Your task to perform on an android device: turn notification dots off Image 0: 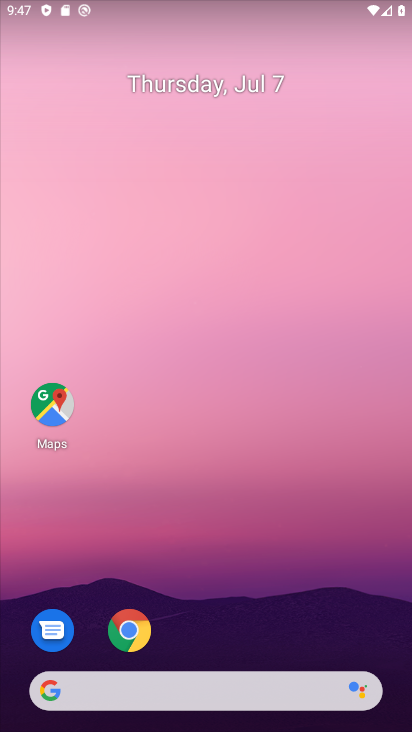
Step 0: press home button
Your task to perform on an android device: turn notification dots off Image 1: 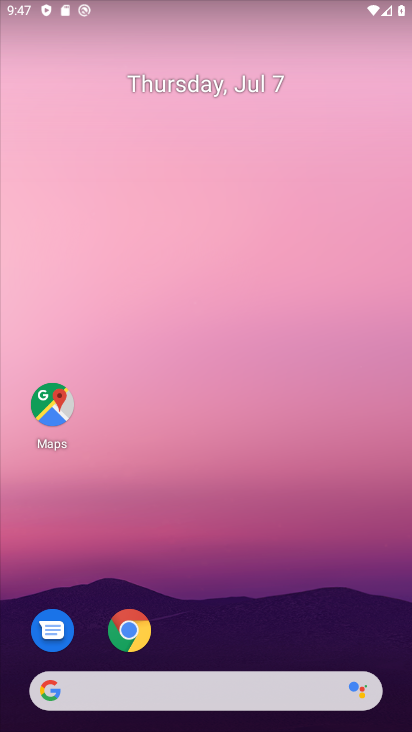
Step 1: click (207, 65)
Your task to perform on an android device: turn notification dots off Image 2: 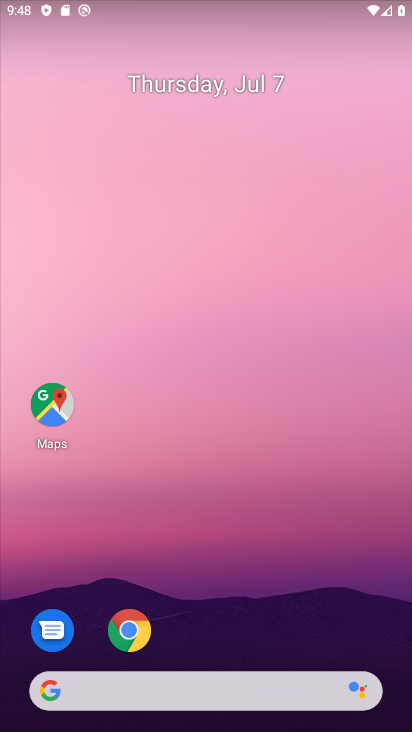
Step 2: drag from (207, 642) to (221, 122)
Your task to perform on an android device: turn notification dots off Image 3: 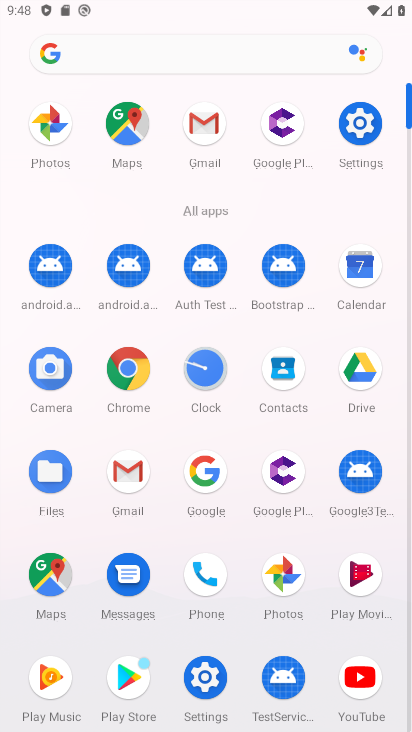
Step 3: click (361, 123)
Your task to perform on an android device: turn notification dots off Image 4: 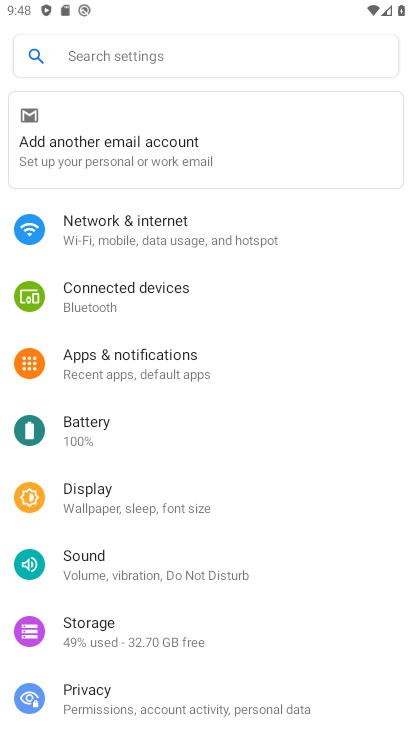
Step 4: click (165, 356)
Your task to perform on an android device: turn notification dots off Image 5: 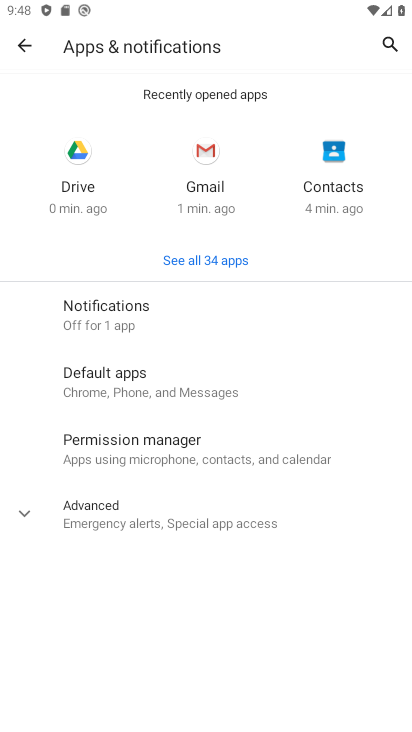
Step 5: click (133, 329)
Your task to perform on an android device: turn notification dots off Image 6: 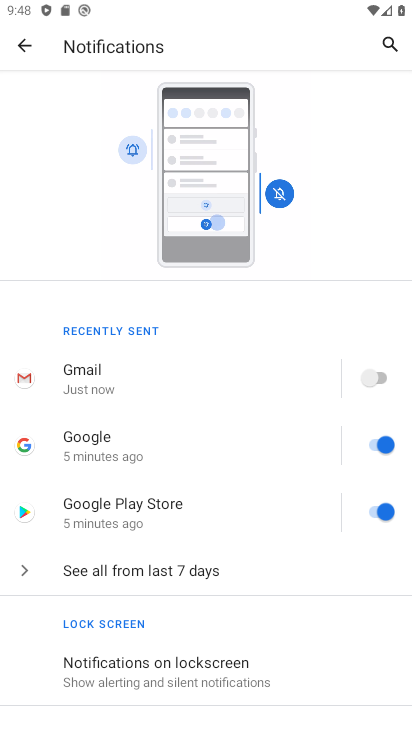
Step 6: drag from (182, 605) to (230, 97)
Your task to perform on an android device: turn notification dots off Image 7: 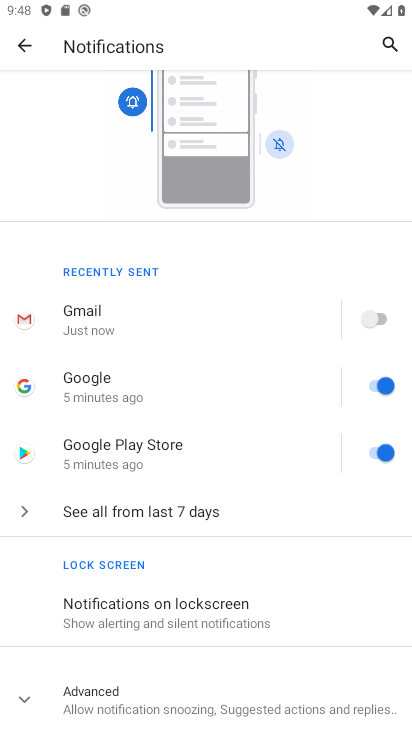
Step 7: click (74, 704)
Your task to perform on an android device: turn notification dots off Image 8: 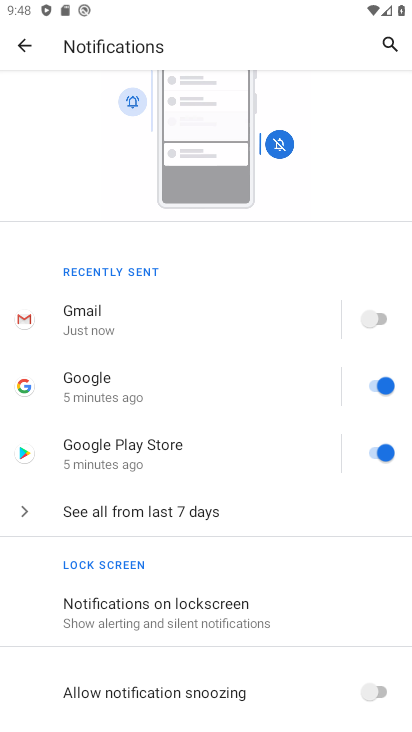
Step 8: drag from (125, 682) to (151, 186)
Your task to perform on an android device: turn notification dots off Image 9: 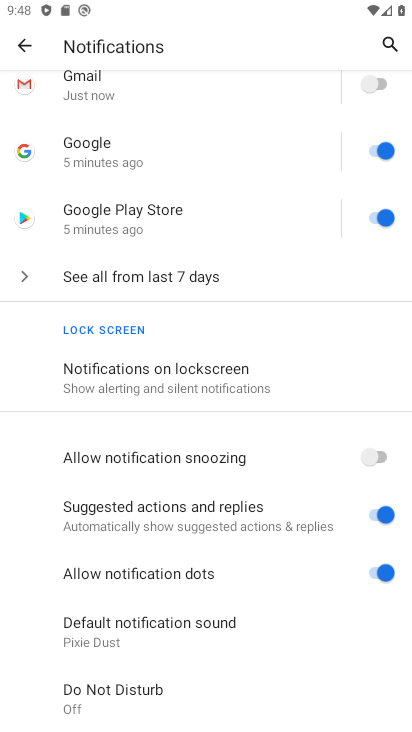
Step 9: click (382, 573)
Your task to perform on an android device: turn notification dots off Image 10: 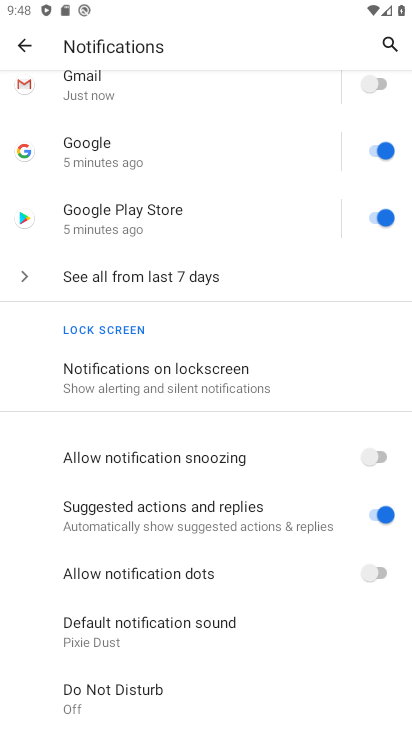
Step 10: task complete